Your task to perform on an android device: Open my contact list Image 0: 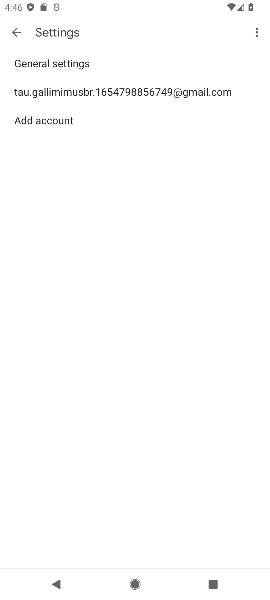
Step 0: press home button
Your task to perform on an android device: Open my contact list Image 1: 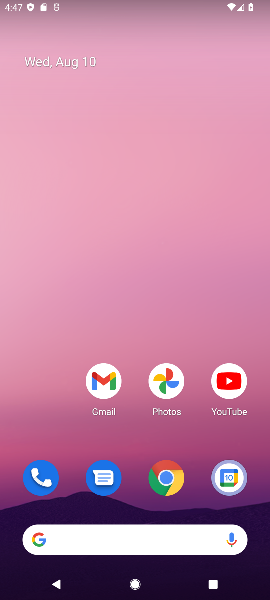
Step 1: click (42, 482)
Your task to perform on an android device: Open my contact list Image 2: 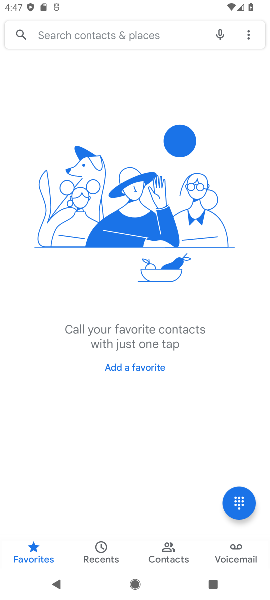
Step 2: click (165, 556)
Your task to perform on an android device: Open my contact list Image 3: 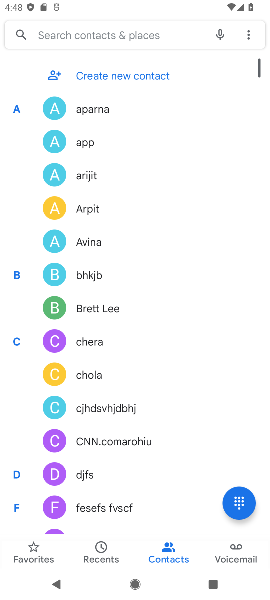
Step 3: task complete